Your task to perform on an android device: turn off priority inbox in the gmail app Image 0: 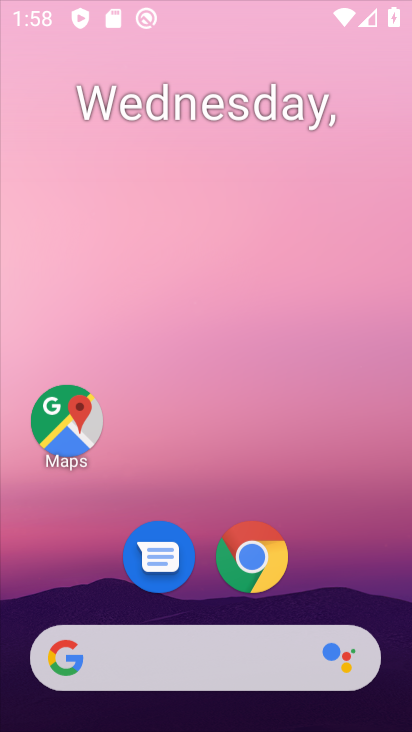
Step 0: press home button
Your task to perform on an android device: turn off priority inbox in the gmail app Image 1: 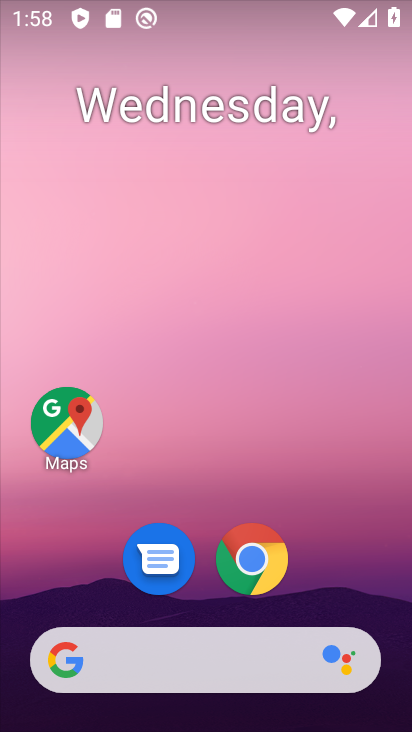
Step 1: drag from (384, 575) to (243, 52)
Your task to perform on an android device: turn off priority inbox in the gmail app Image 2: 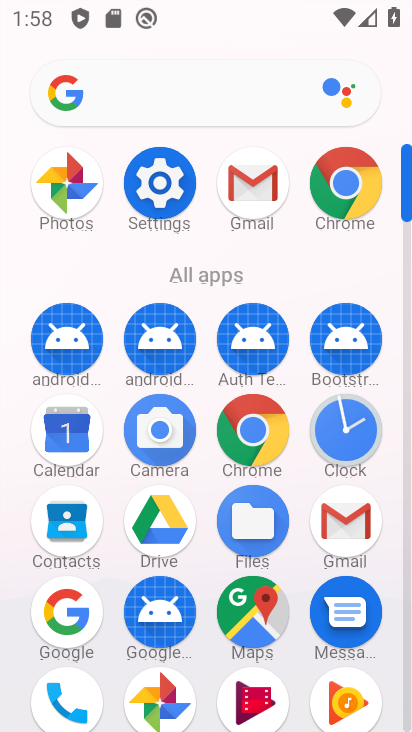
Step 2: click (230, 173)
Your task to perform on an android device: turn off priority inbox in the gmail app Image 3: 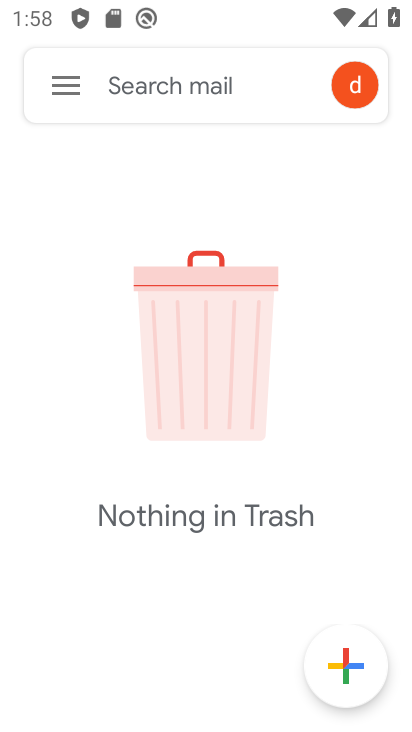
Step 3: click (50, 80)
Your task to perform on an android device: turn off priority inbox in the gmail app Image 4: 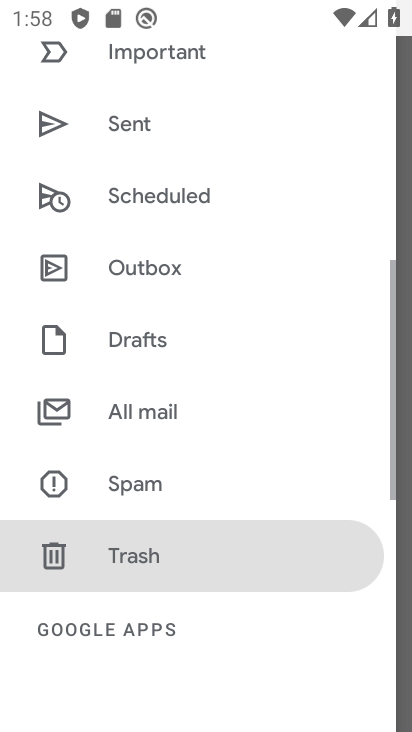
Step 4: drag from (181, 532) to (255, 69)
Your task to perform on an android device: turn off priority inbox in the gmail app Image 5: 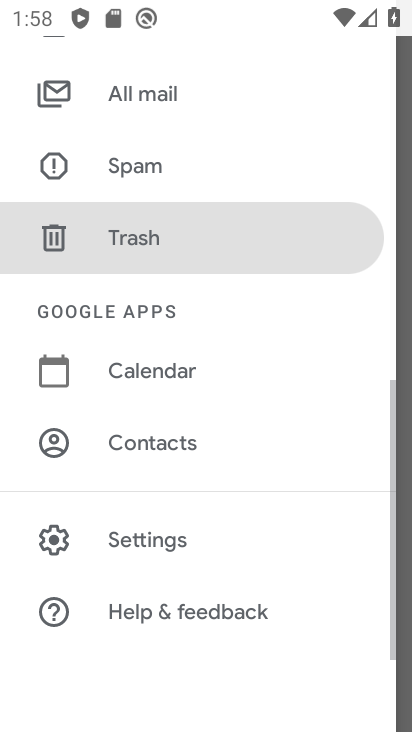
Step 5: click (163, 542)
Your task to perform on an android device: turn off priority inbox in the gmail app Image 6: 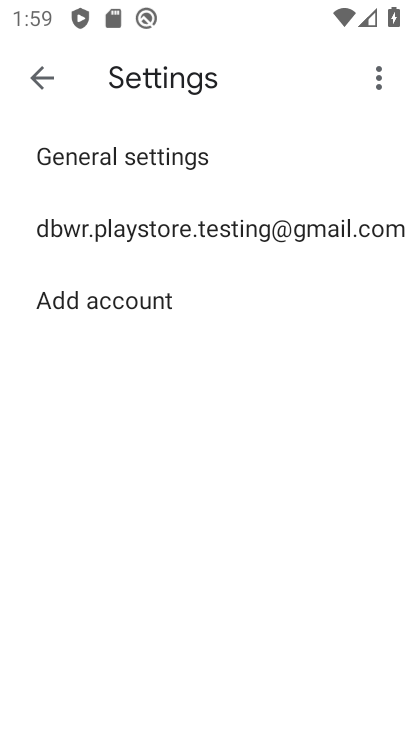
Step 6: click (185, 227)
Your task to perform on an android device: turn off priority inbox in the gmail app Image 7: 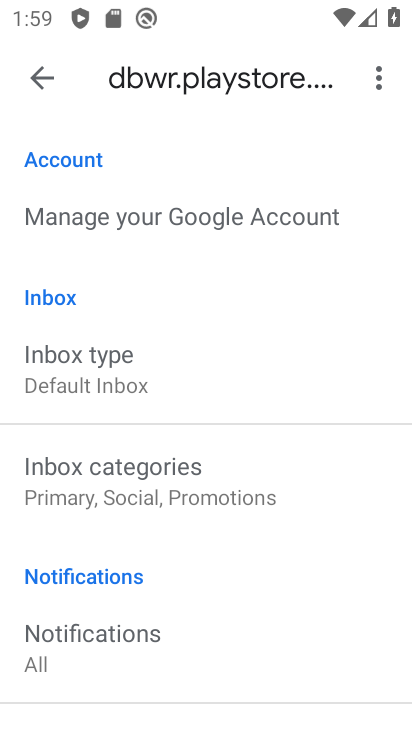
Step 7: click (123, 379)
Your task to perform on an android device: turn off priority inbox in the gmail app Image 8: 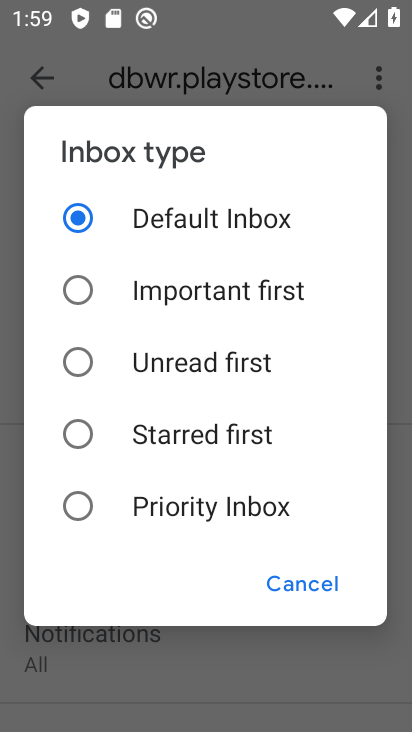
Step 8: click (312, 199)
Your task to perform on an android device: turn off priority inbox in the gmail app Image 9: 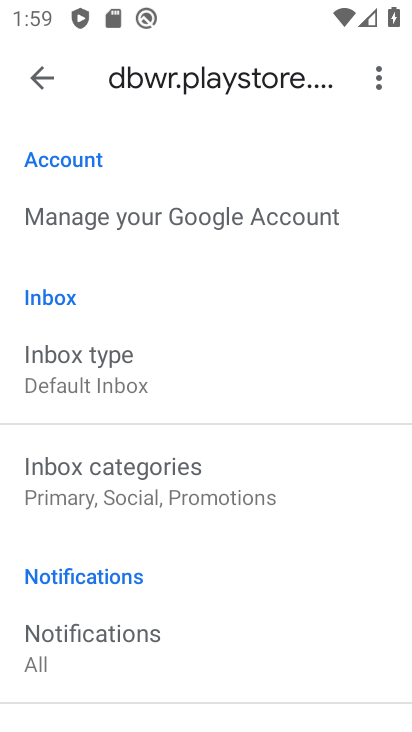
Step 9: task complete